Your task to perform on an android device: Go to Google maps Image 0: 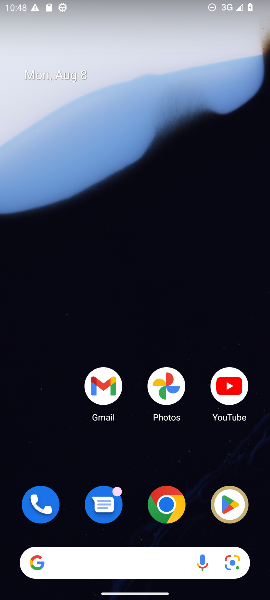
Step 0: drag from (144, 470) to (164, 1)
Your task to perform on an android device: Go to Google maps Image 1: 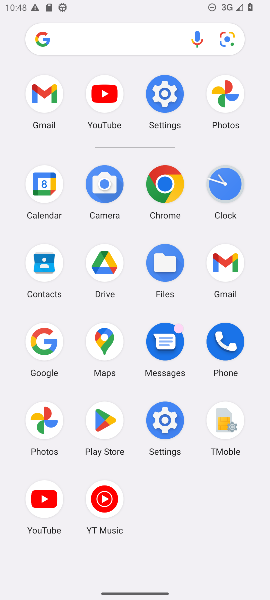
Step 1: click (105, 357)
Your task to perform on an android device: Go to Google maps Image 2: 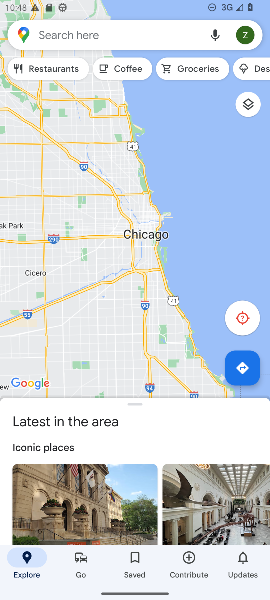
Step 2: task complete